Your task to perform on an android device: Find coffee shops on Maps Image 0: 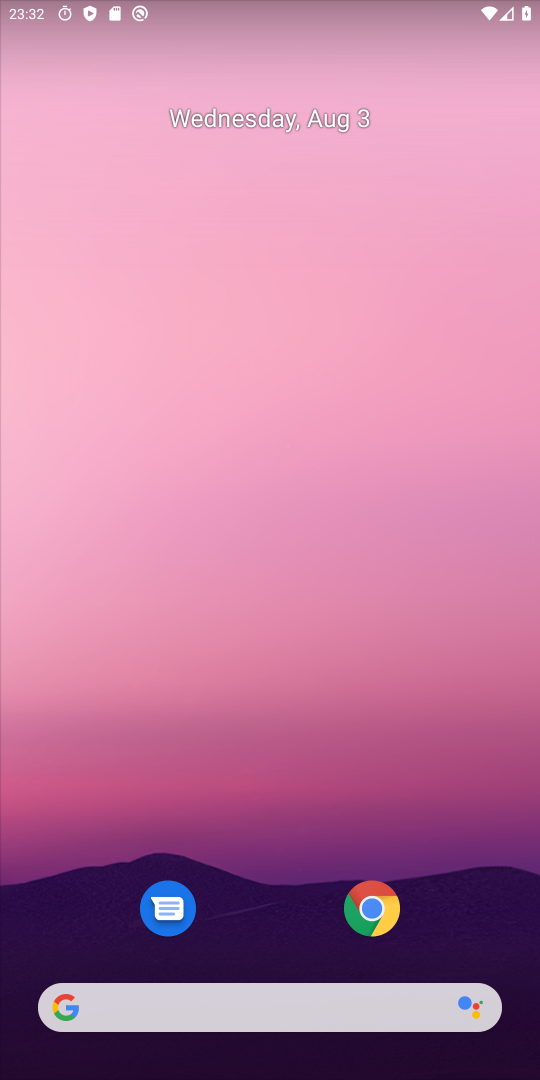
Step 0: press home button
Your task to perform on an android device: Find coffee shops on Maps Image 1: 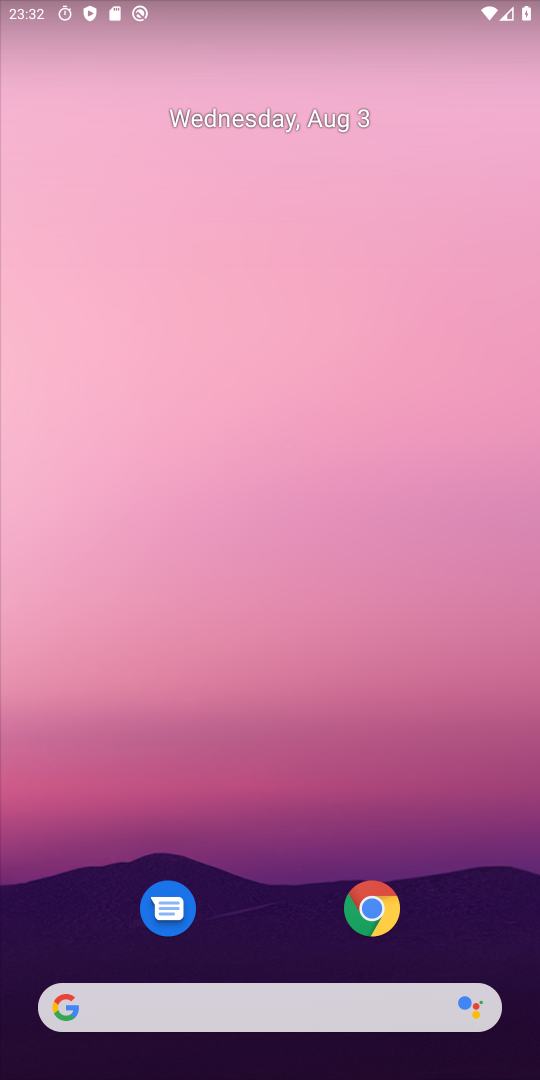
Step 1: drag from (315, 1050) to (334, 206)
Your task to perform on an android device: Find coffee shops on Maps Image 2: 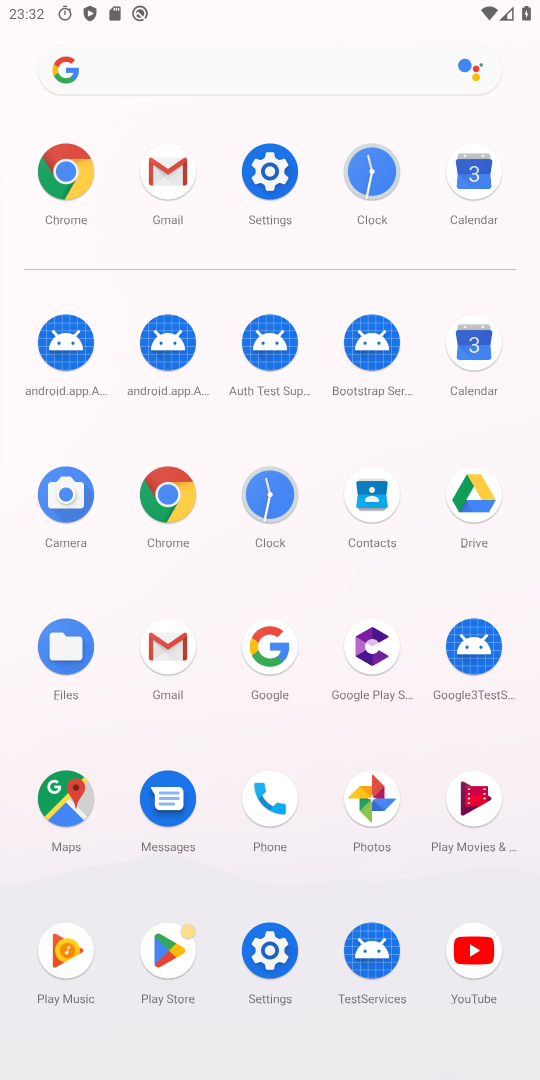
Step 2: click (69, 787)
Your task to perform on an android device: Find coffee shops on Maps Image 3: 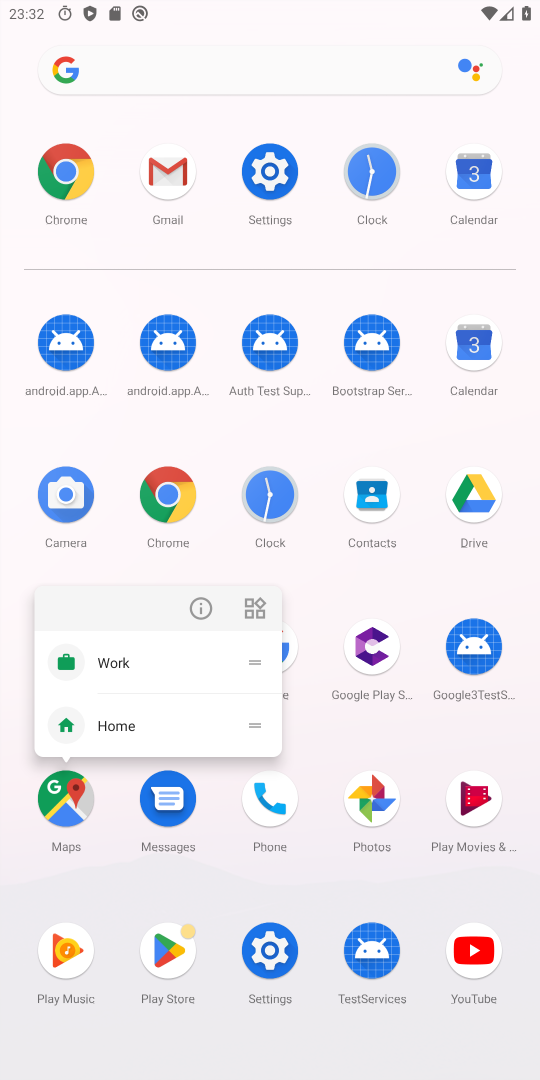
Step 3: click (69, 787)
Your task to perform on an android device: Find coffee shops on Maps Image 4: 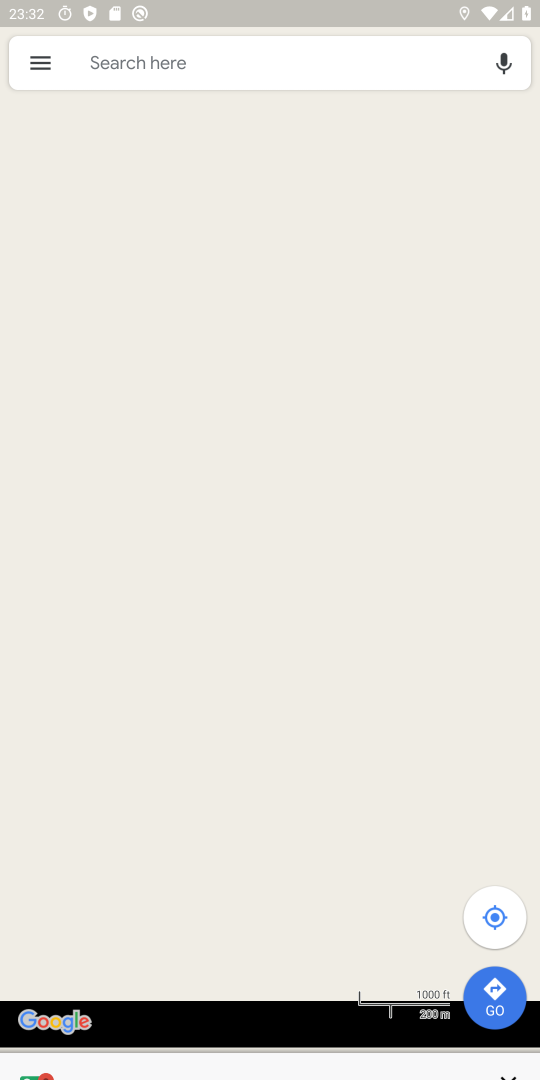
Step 4: click (33, 69)
Your task to perform on an android device: Find coffee shops on Maps Image 5: 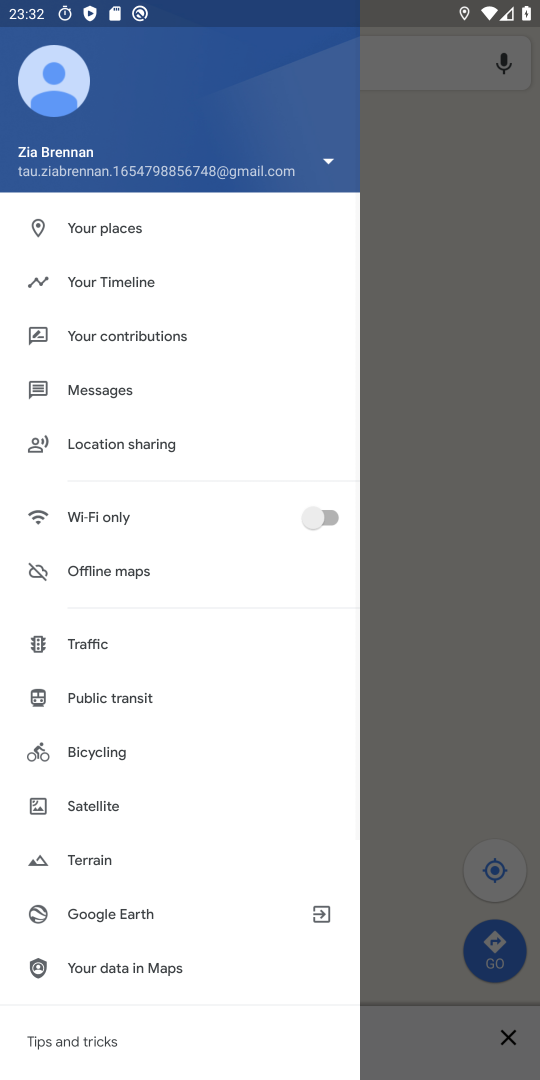
Step 5: click (369, 346)
Your task to perform on an android device: Find coffee shops on Maps Image 6: 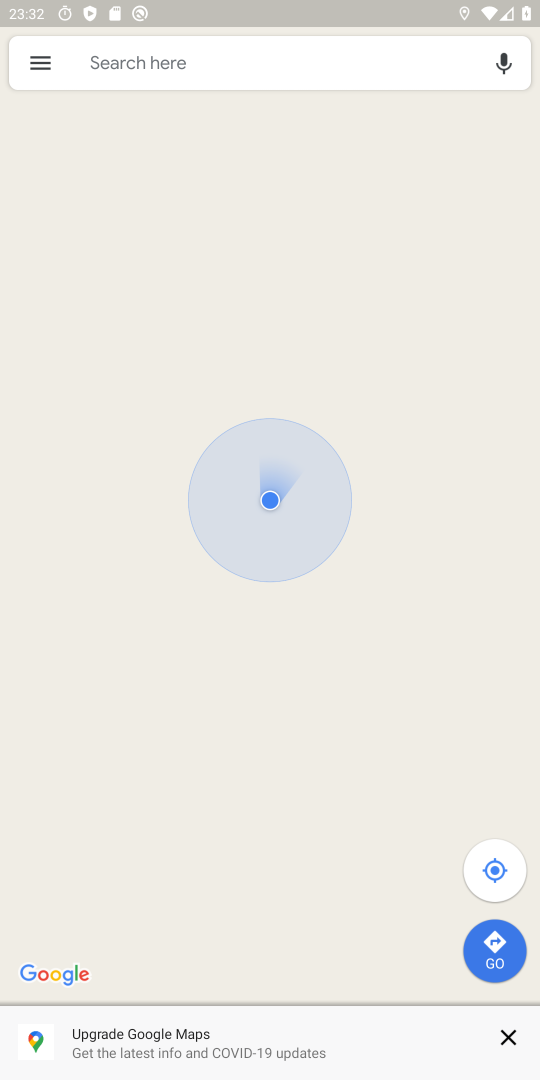
Step 6: click (208, 73)
Your task to perform on an android device: Find coffee shops on Maps Image 7: 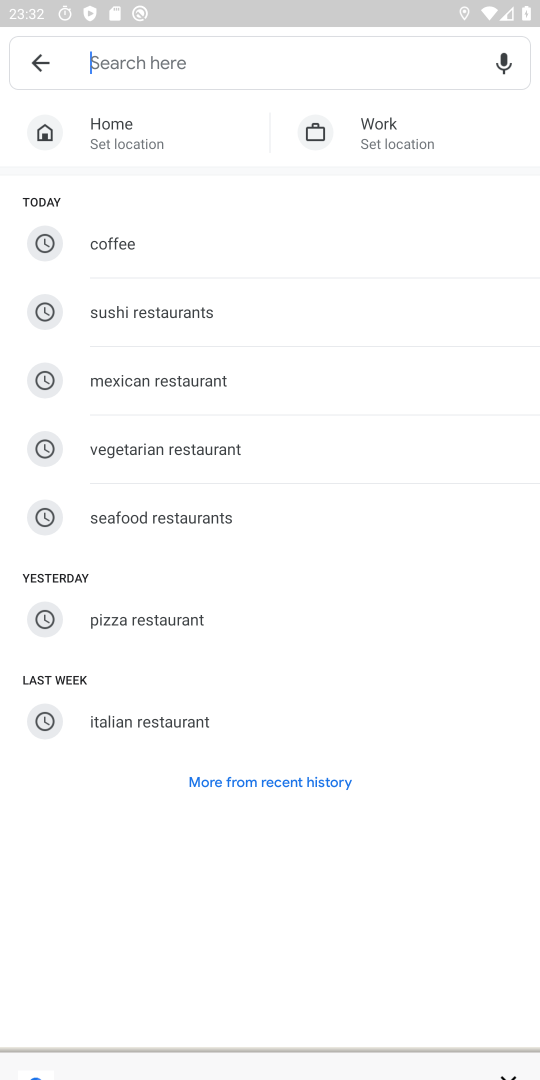
Step 7: click (100, 241)
Your task to perform on an android device: Find coffee shops on Maps Image 8: 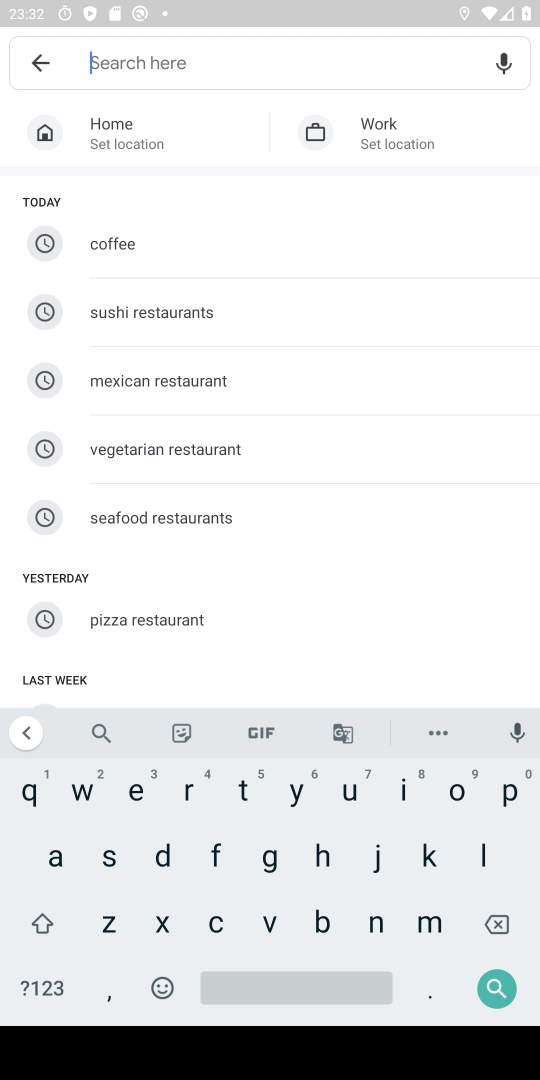
Step 8: click (172, 223)
Your task to perform on an android device: Find coffee shops on Maps Image 9: 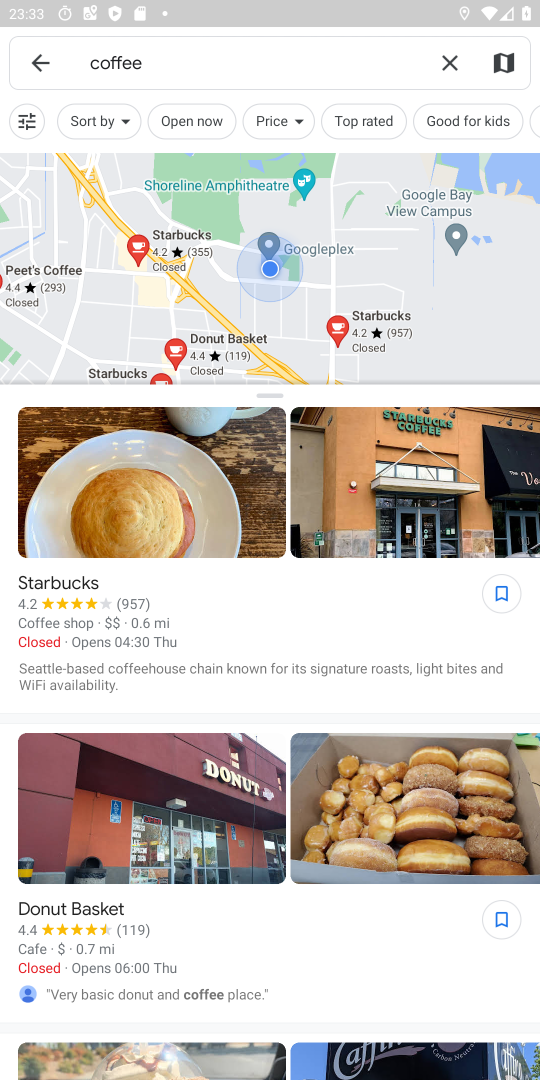
Step 9: task complete